Your task to perform on an android device: Go to Amazon Image 0: 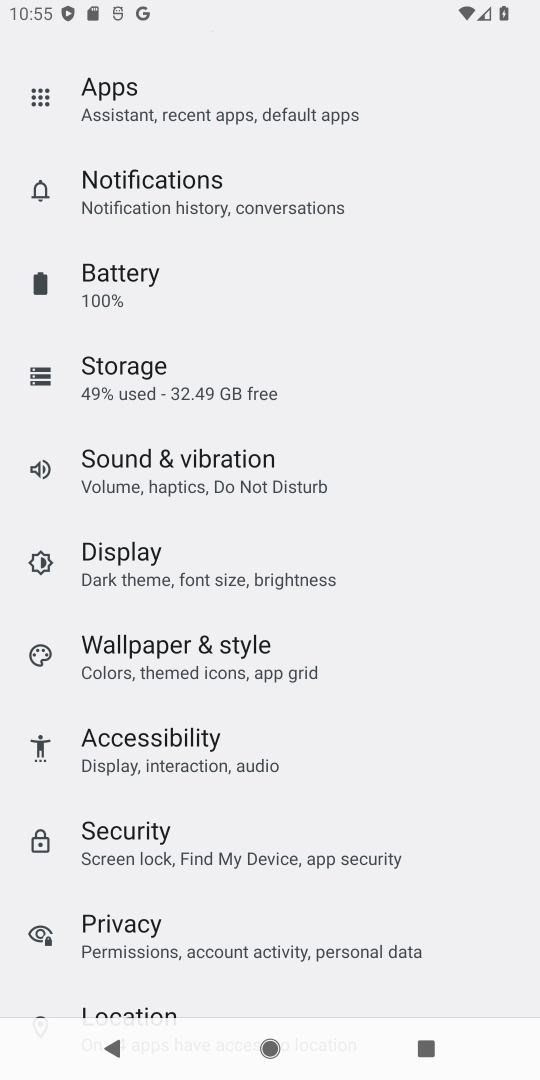
Step 0: press home button
Your task to perform on an android device: Go to Amazon Image 1: 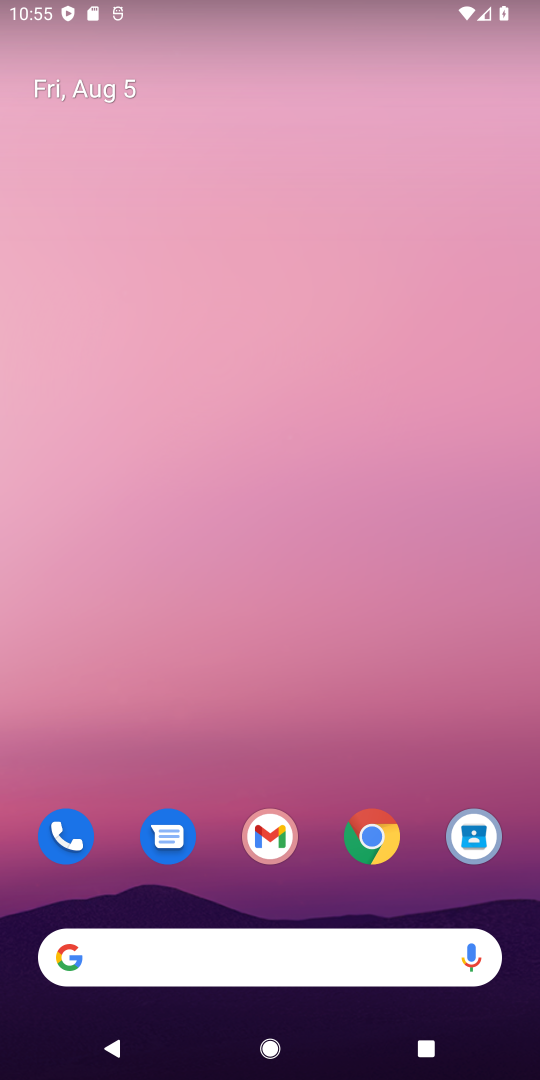
Step 1: drag from (317, 658) to (377, 60)
Your task to perform on an android device: Go to Amazon Image 2: 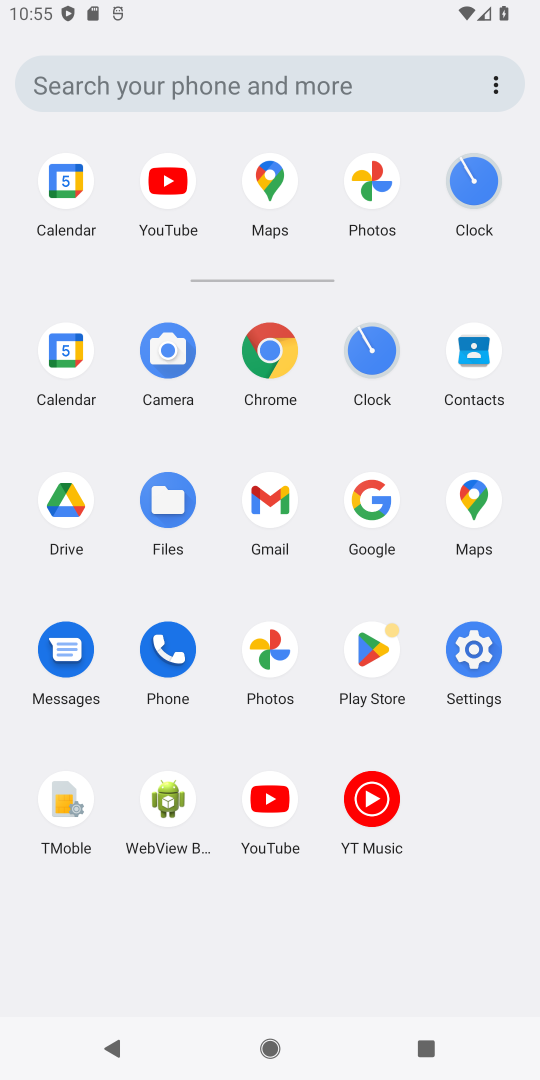
Step 2: click (276, 348)
Your task to perform on an android device: Go to Amazon Image 3: 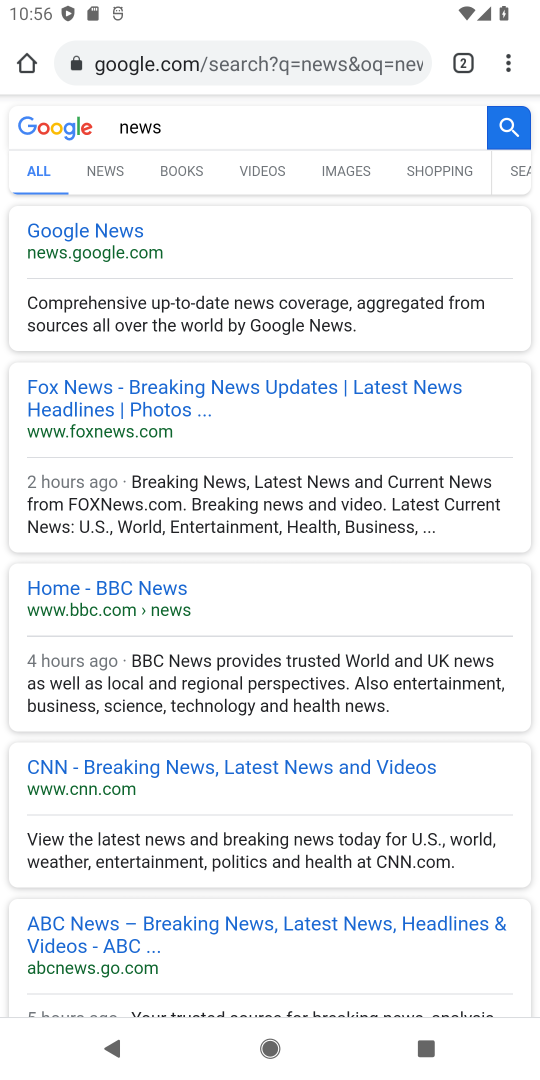
Step 3: click (155, 71)
Your task to perform on an android device: Go to Amazon Image 4: 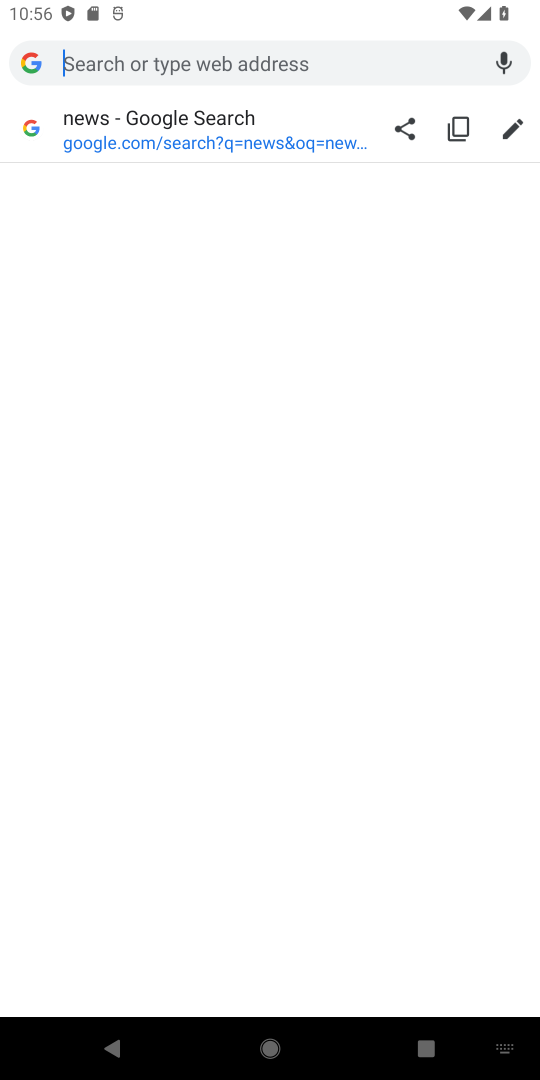
Step 4: type "amazon"
Your task to perform on an android device: Go to Amazon Image 5: 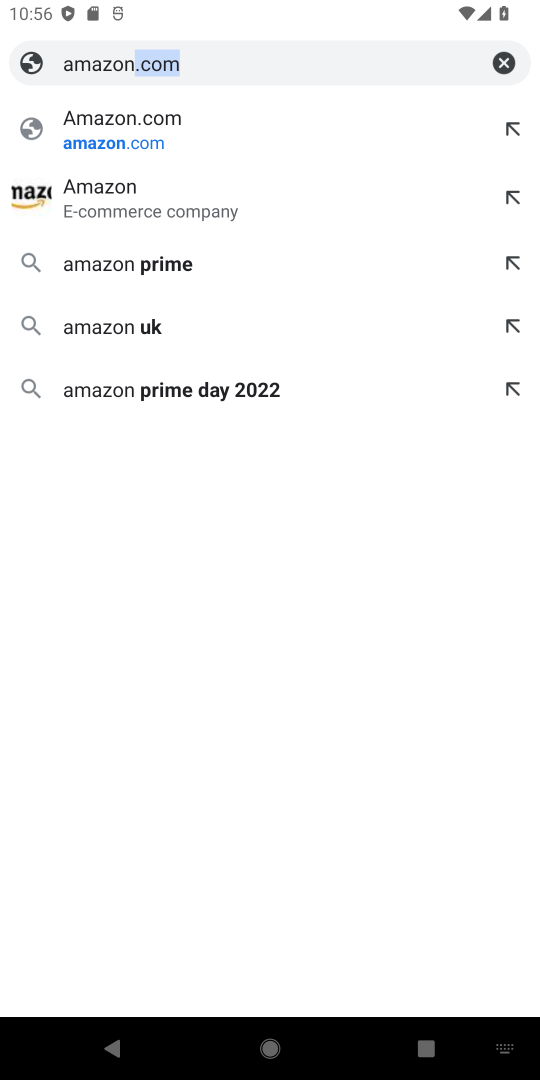
Step 5: click (83, 134)
Your task to perform on an android device: Go to Amazon Image 6: 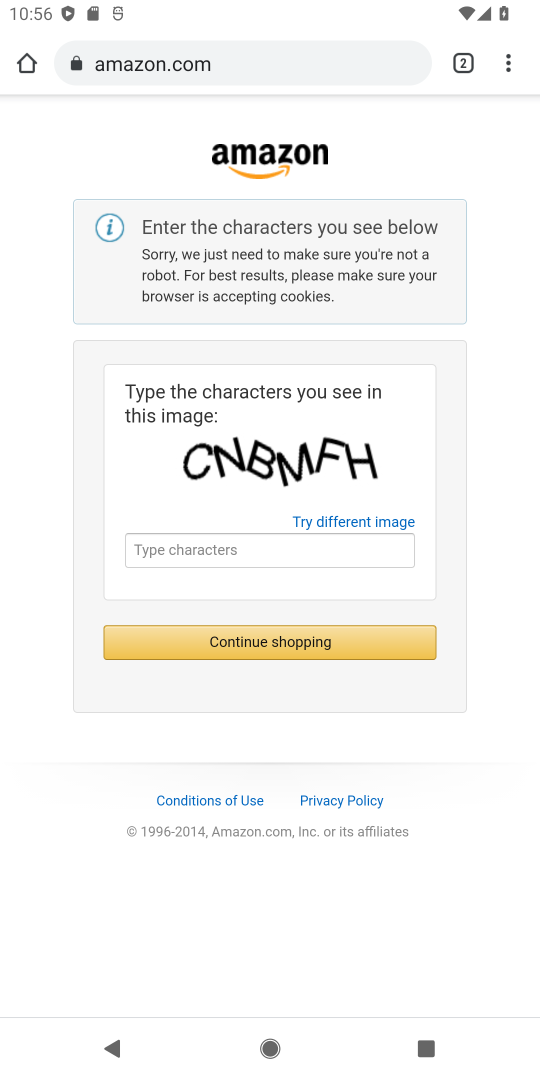
Step 6: task complete